Your task to perform on an android device: Go to ESPN.com Image 0: 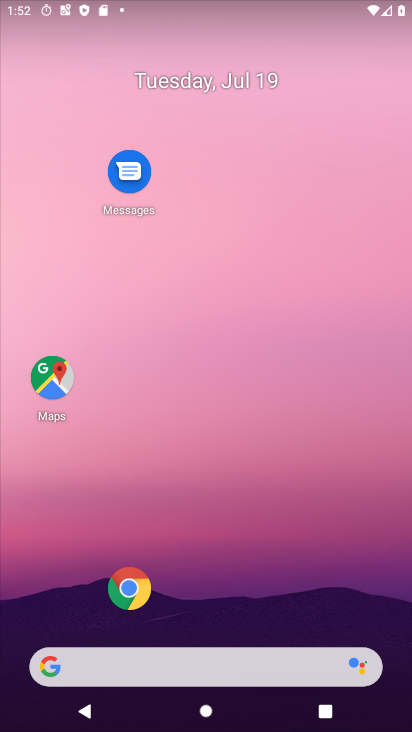
Step 0: click (94, 652)
Your task to perform on an android device: Go to ESPN.com Image 1: 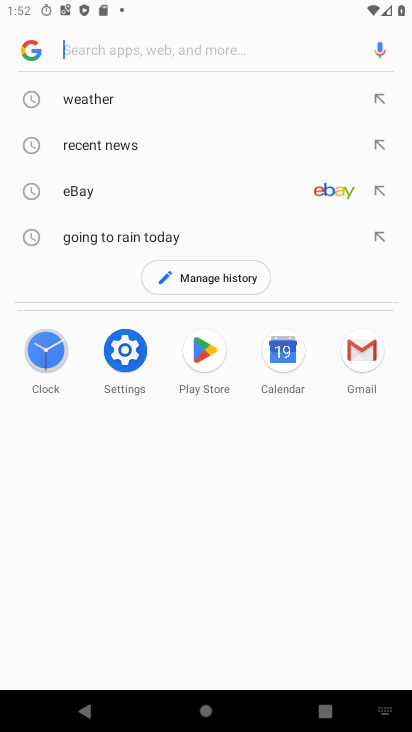
Step 1: type "ESPN.com"
Your task to perform on an android device: Go to ESPN.com Image 2: 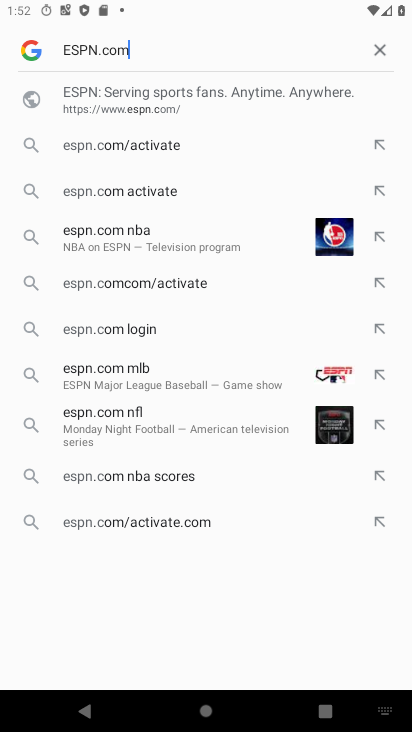
Step 2: type ""
Your task to perform on an android device: Go to ESPN.com Image 3: 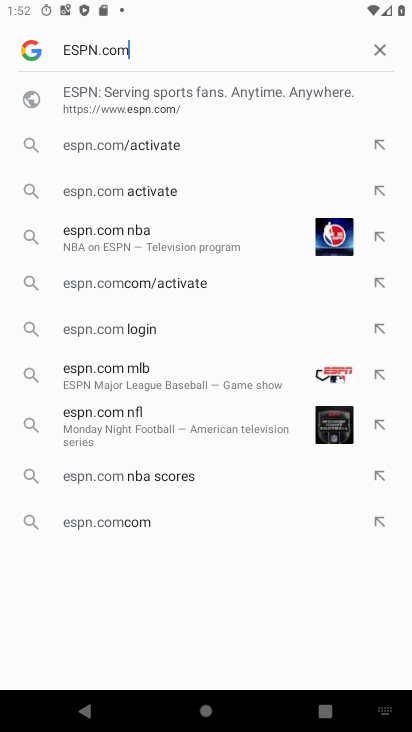
Step 3: click (127, 87)
Your task to perform on an android device: Go to ESPN.com Image 4: 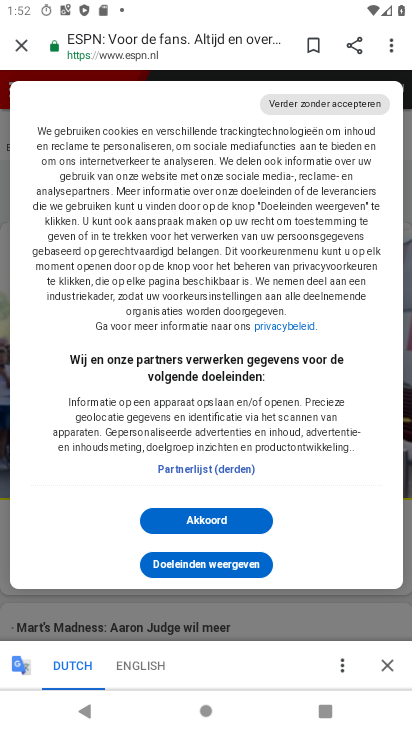
Step 4: task complete